Your task to perform on an android device: What is the recent news? Image 0: 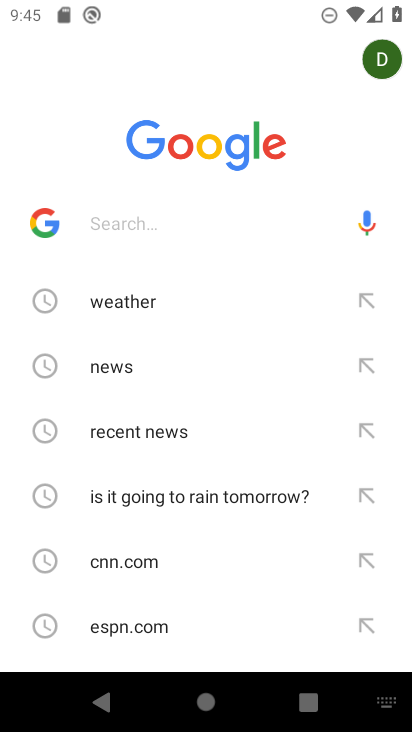
Step 0: click (140, 229)
Your task to perform on an android device: What is the recent news? Image 1: 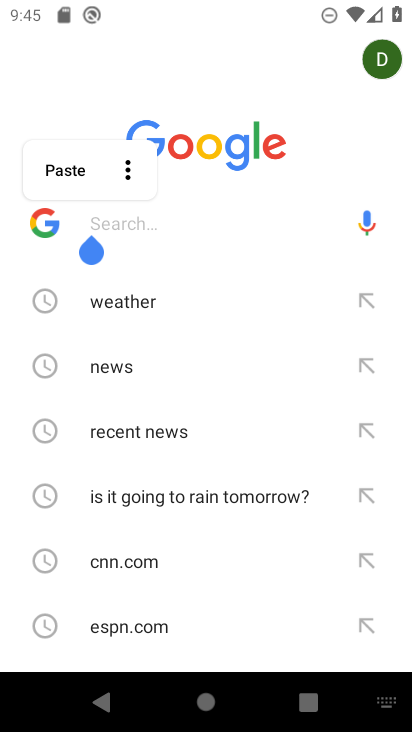
Step 1: click (230, 217)
Your task to perform on an android device: What is the recent news? Image 2: 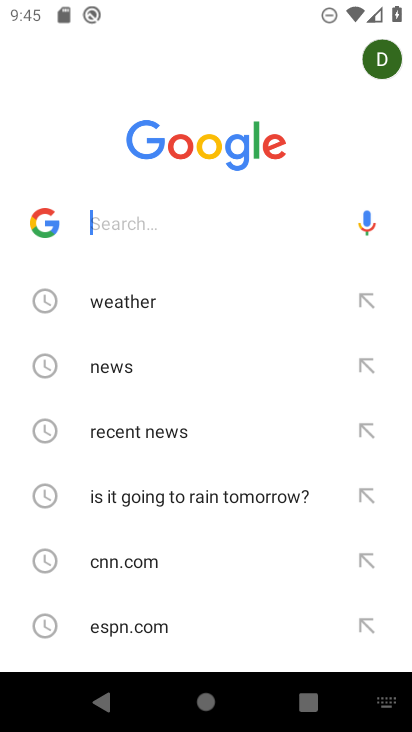
Step 2: type "recent news"
Your task to perform on an android device: What is the recent news? Image 3: 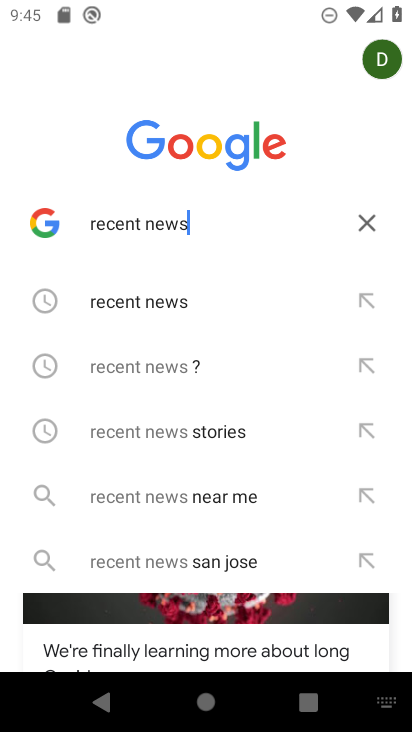
Step 3: click (142, 298)
Your task to perform on an android device: What is the recent news? Image 4: 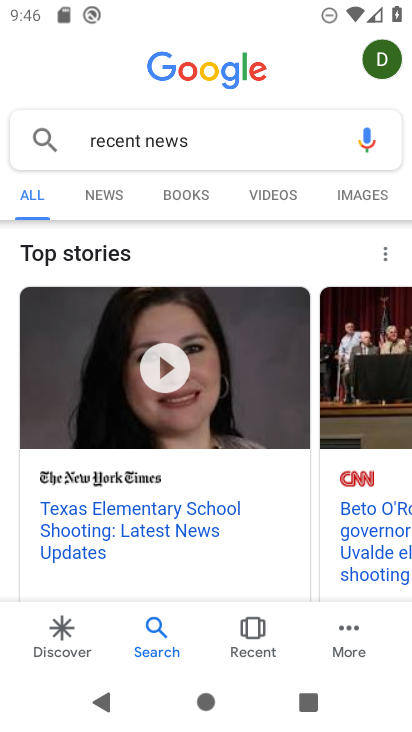
Step 4: task complete